Your task to perform on an android device: Open the stopwatch Image 0: 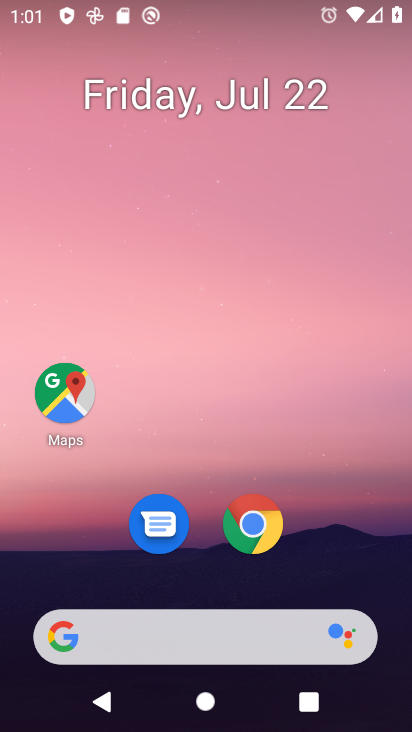
Step 0: drag from (246, 522) to (345, 85)
Your task to perform on an android device: Open the stopwatch Image 1: 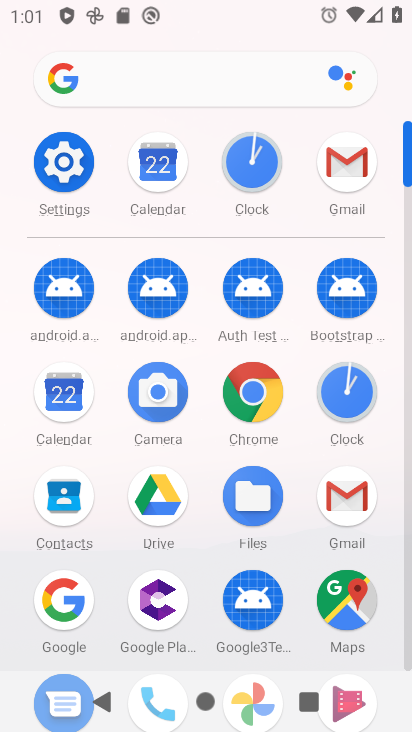
Step 1: click (256, 169)
Your task to perform on an android device: Open the stopwatch Image 2: 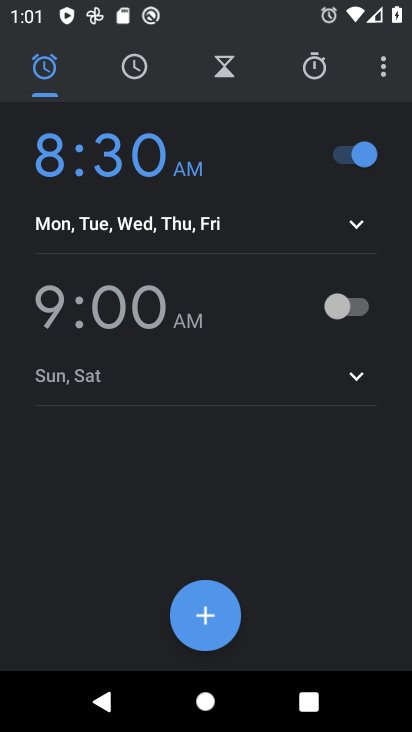
Step 2: click (319, 69)
Your task to perform on an android device: Open the stopwatch Image 3: 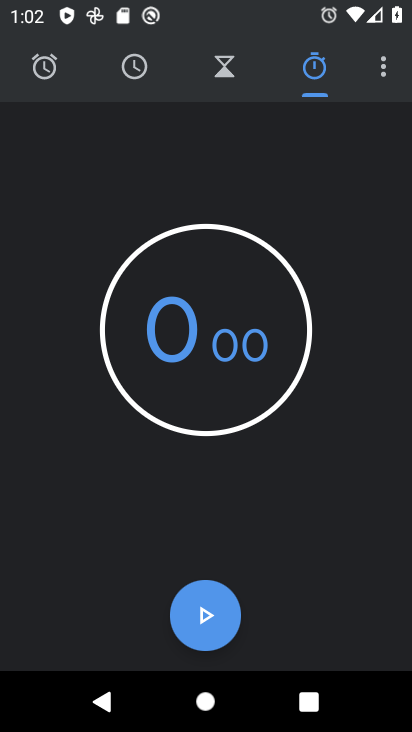
Step 3: task complete